Your task to perform on an android device: change your default location settings in chrome Image 0: 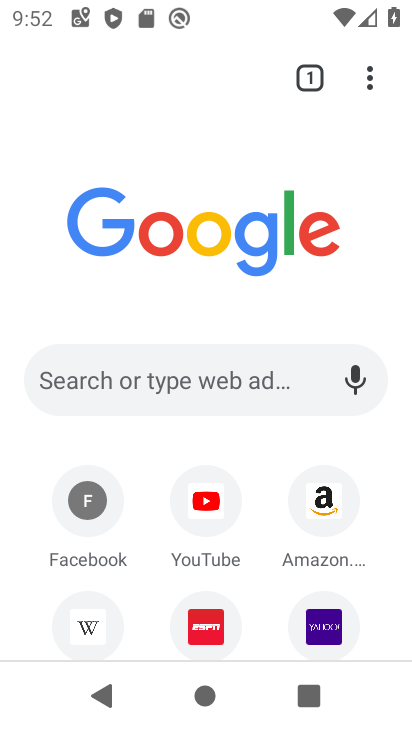
Step 0: press home button
Your task to perform on an android device: change your default location settings in chrome Image 1: 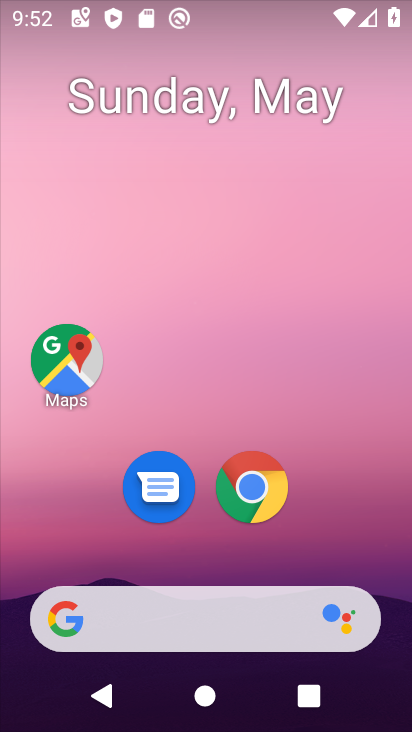
Step 1: drag from (370, 546) to (369, 106)
Your task to perform on an android device: change your default location settings in chrome Image 2: 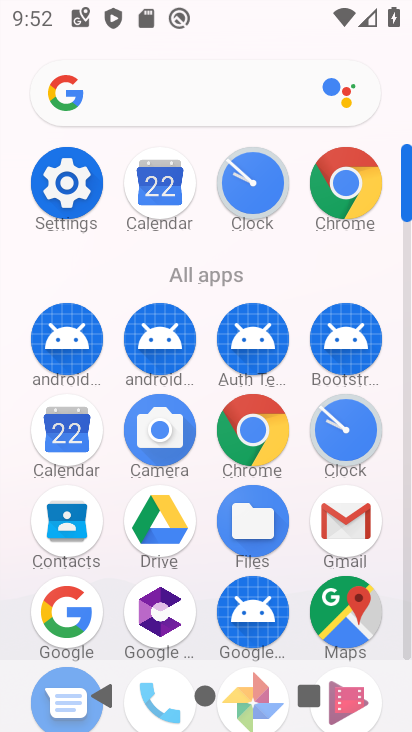
Step 2: click (266, 428)
Your task to perform on an android device: change your default location settings in chrome Image 3: 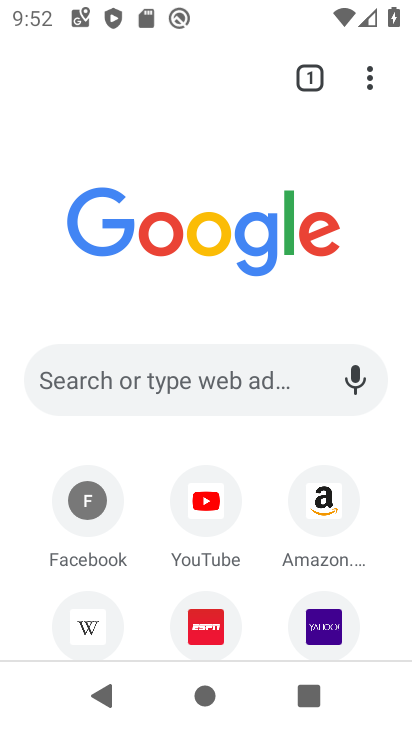
Step 3: click (370, 90)
Your task to perform on an android device: change your default location settings in chrome Image 4: 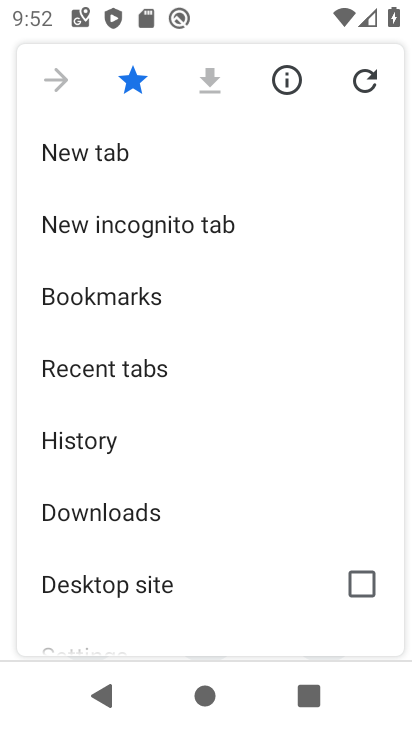
Step 4: drag from (275, 474) to (289, 353)
Your task to perform on an android device: change your default location settings in chrome Image 5: 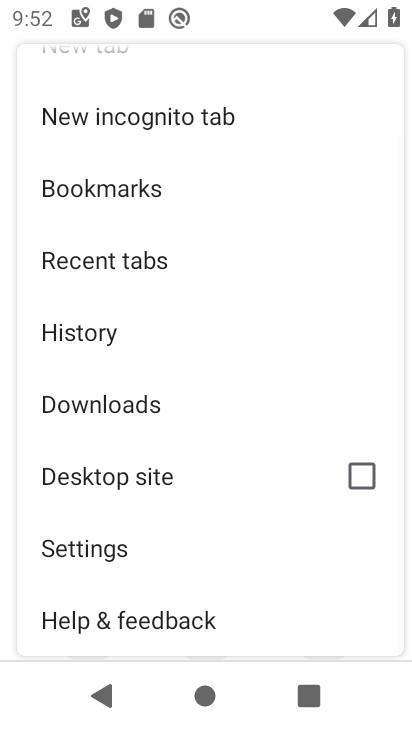
Step 5: drag from (275, 491) to (282, 343)
Your task to perform on an android device: change your default location settings in chrome Image 6: 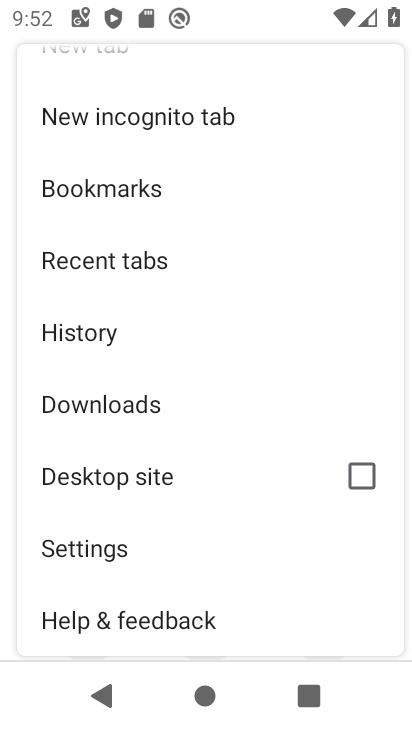
Step 6: click (197, 548)
Your task to perform on an android device: change your default location settings in chrome Image 7: 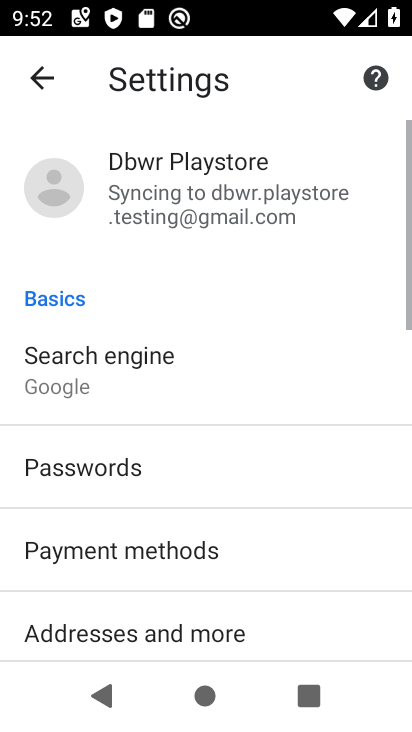
Step 7: drag from (251, 556) to (268, 434)
Your task to perform on an android device: change your default location settings in chrome Image 8: 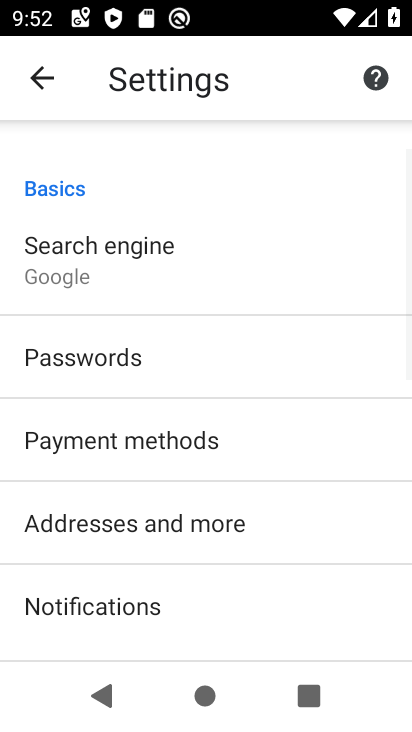
Step 8: drag from (301, 555) to (301, 474)
Your task to perform on an android device: change your default location settings in chrome Image 9: 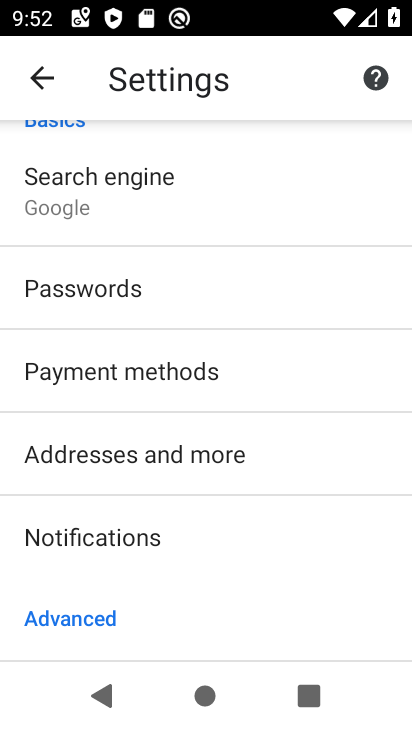
Step 9: drag from (300, 576) to (295, 470)
Your task to perform on an android device: change your default location settings in chrome Image 10: 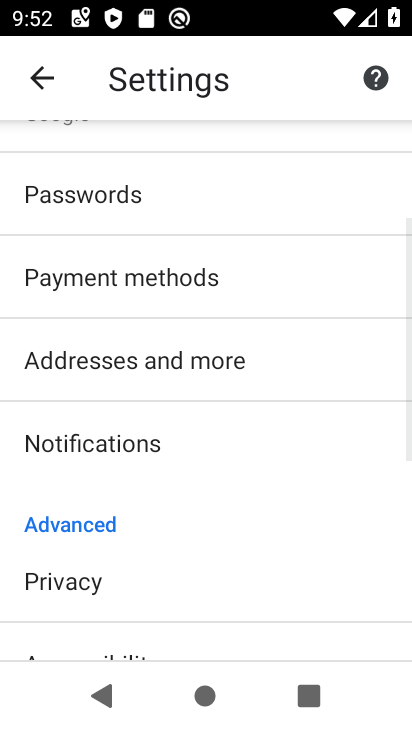
Step 10: drag from (285, 582) to (274, 407)
Your task to perform on an android device: change your default location settings in chrome Image 11: 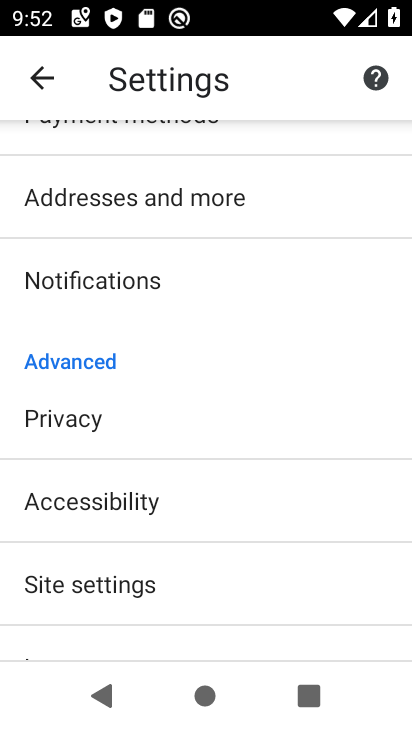
Step 11: drag from (265, 586) to (279, 461)
Your task to perform on an android device: change your default location settings in chrome Image 12: 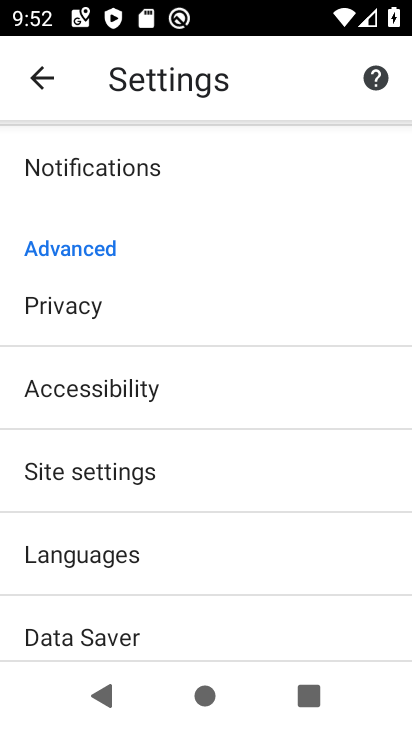
Step 12: drag from (281, 593) to (291, 419)
Your task to perform on an android device: change your default location settings in chrome Image 13: 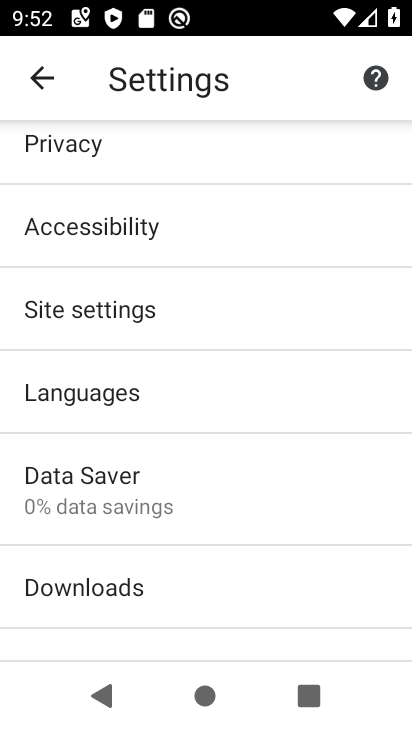
Step 13: drag from (289, 556) to (288, 461)
Your task to perform on an android device: change your default location settings in chrome Image 14: 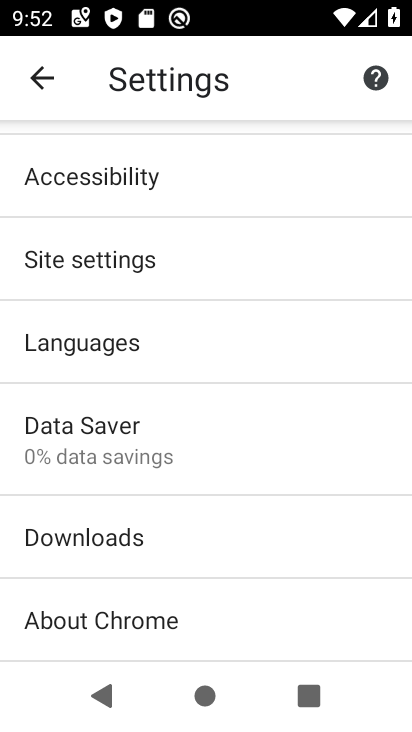
Step 14: click (283, 289)
Your task to perform on an android device: change your default location settings in chrome Image 15: 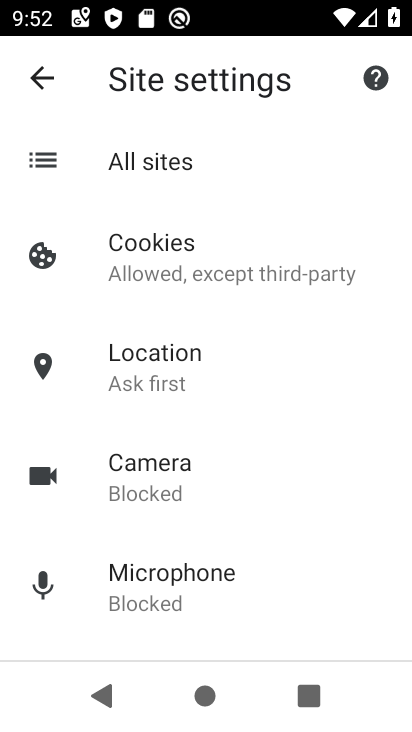
Step 15: drag from (273, 551) to (291, 478)
Your task to perform on an android device: change your default location settings in chrome Image 16: 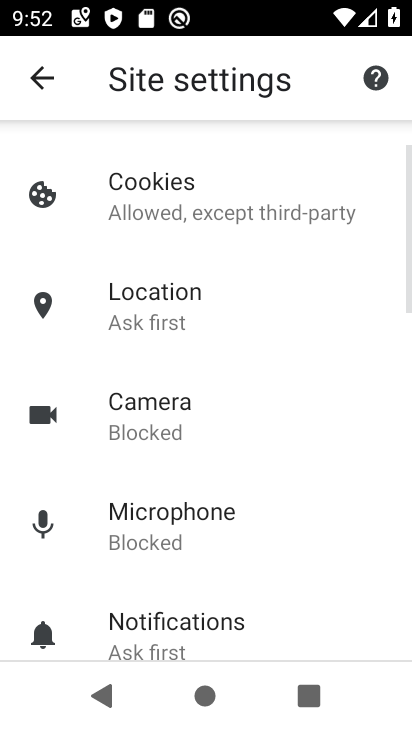
Step 16: drag from (313, 556) to (319, 505)
Your task to perform on an android device: change your default location settings in chrome Image 17: 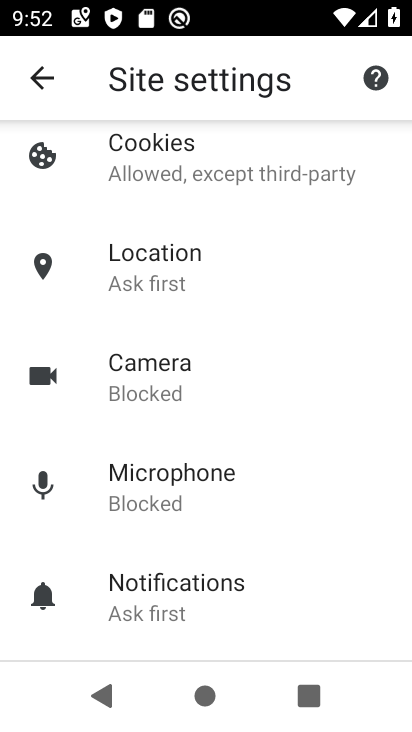
Step 17: drag from (336, 548) to (331, 431)
Your task to perform on an android device: change your default location settings in chrome Image 18: 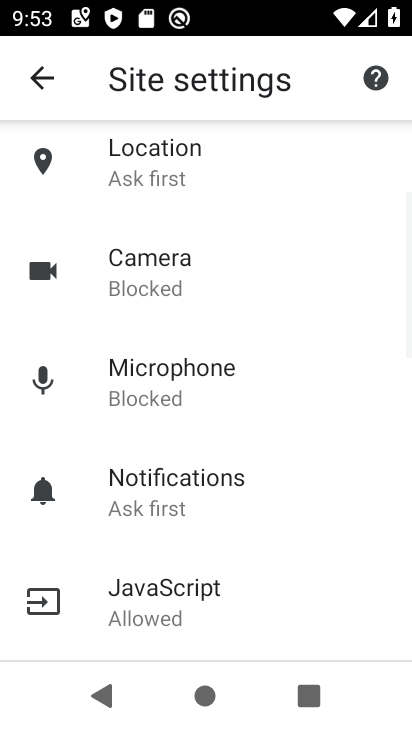
Step 18: drag from (316, 569) to (318, 448)
Your task to perform on an android device: change your default location settings in chrome Image 19: 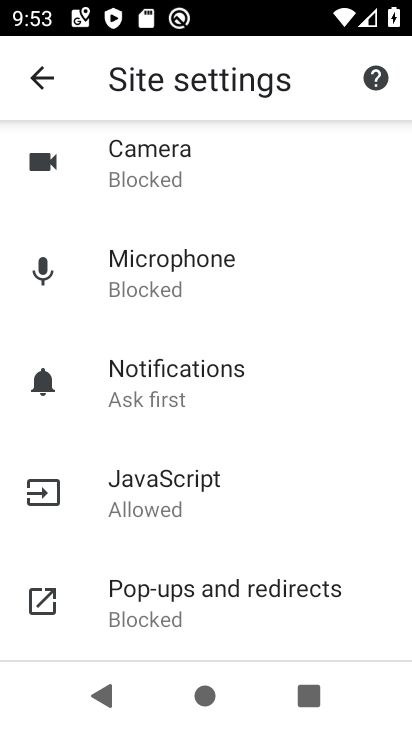
Step 19: drag from (324, 307) to (327, 422)
Your task to perform on an android device: change your default location settings in chrome Image 20: 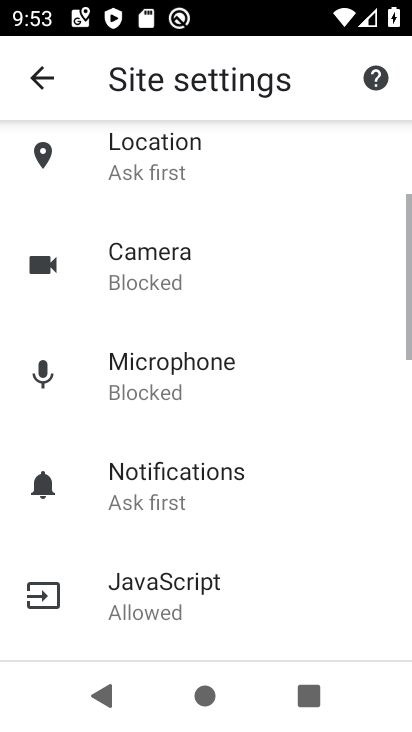
Step 20: drag from (324, 304) to (341, 406)
Your task to perform on an android device: change your default location settings in chrome Image 21: 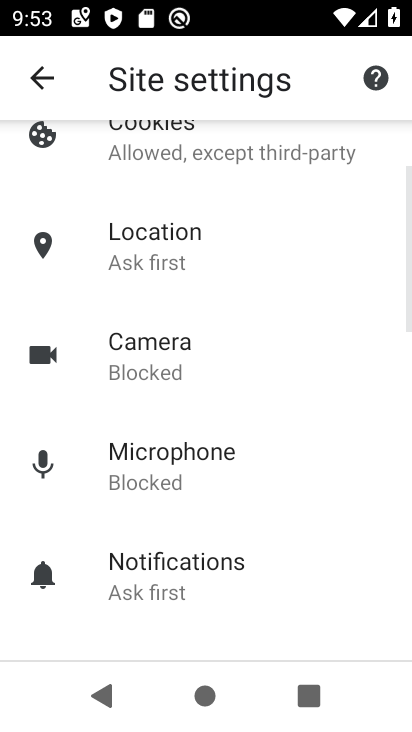
Step 21: click (228, 260)
Your task to perform on an android device: change your default location settings in chrome Image 22: 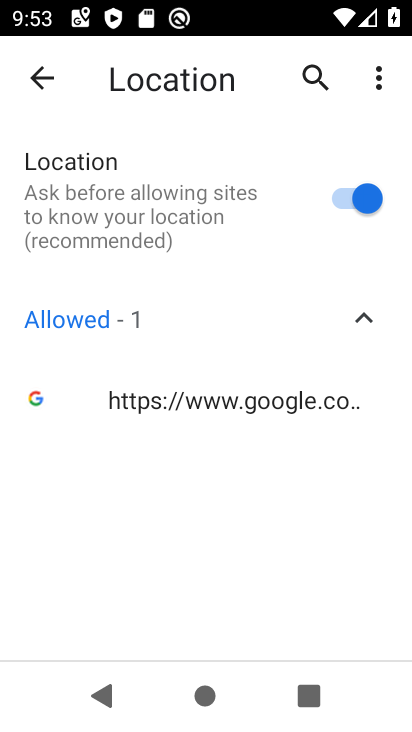
Step 22: click (342, 201)
Your task to perform on an android device: change your default location settings in chrome Image 23: 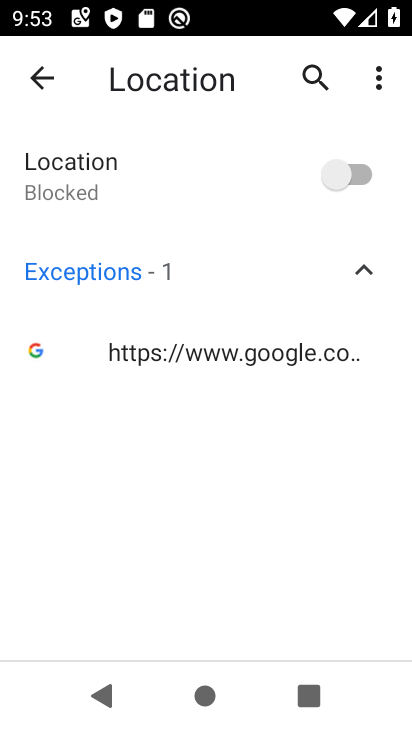
Step 23: task complete